Your task to perform on an android device: Is it going to rain tomorrow? Image 0: 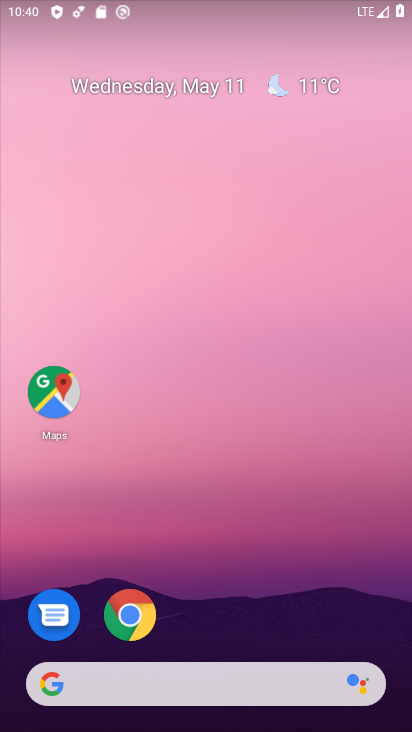
Step 0: click (320, 85)
Your task to perform on an android device: Is it going to rain tomorrow? Image 1: 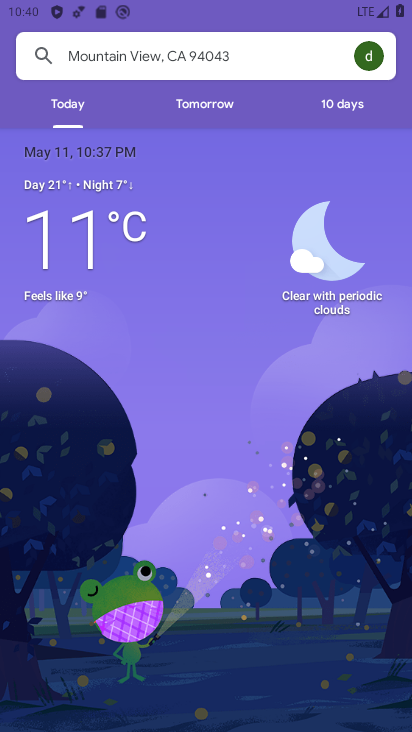
Step 1: click (193, 112)
Your task to perform on an android device: Is it going to rain tomorrow? Image 2: 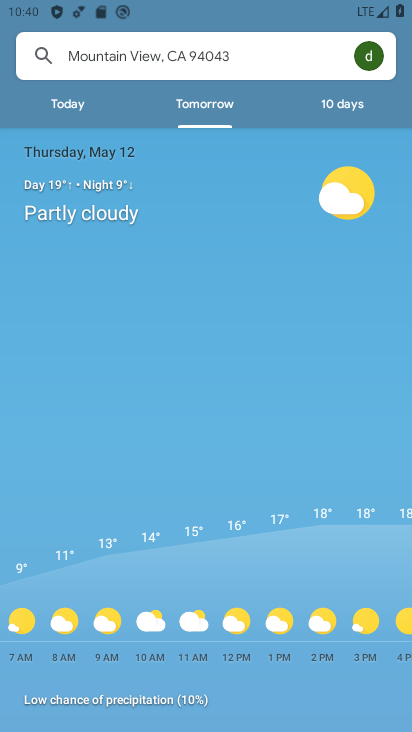
Step 2: task complete